Your task to perform on an android device: When is my next meeting? Image 0: 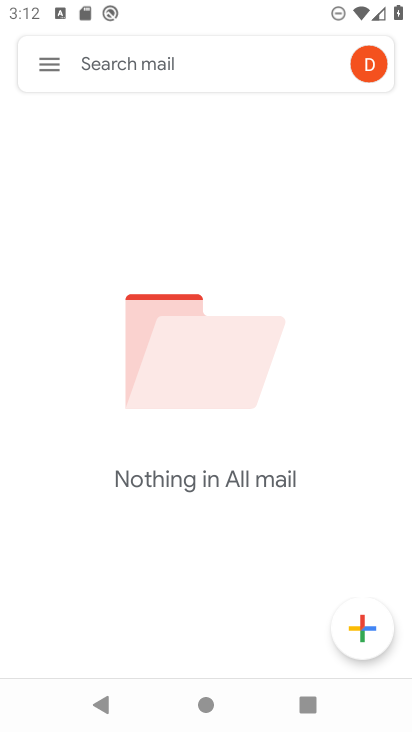
Step 0: press home button
Your task to perform on an android device: When is my next meeting? Image 1: 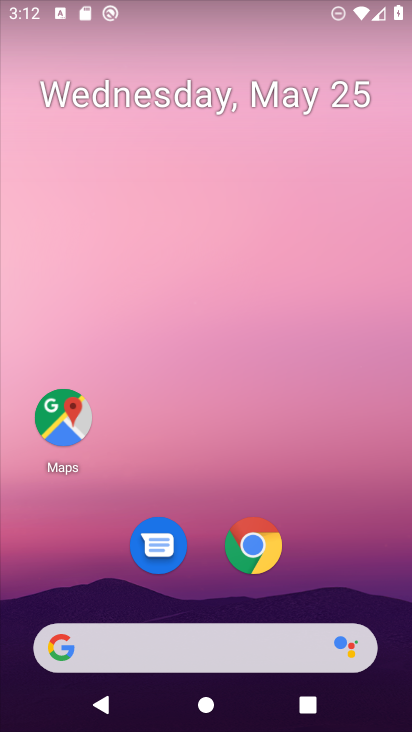
Step 1: drag from (321, 564) to (261, 94)
Your task to perform on an android device: When is my next meeting? Image 2: 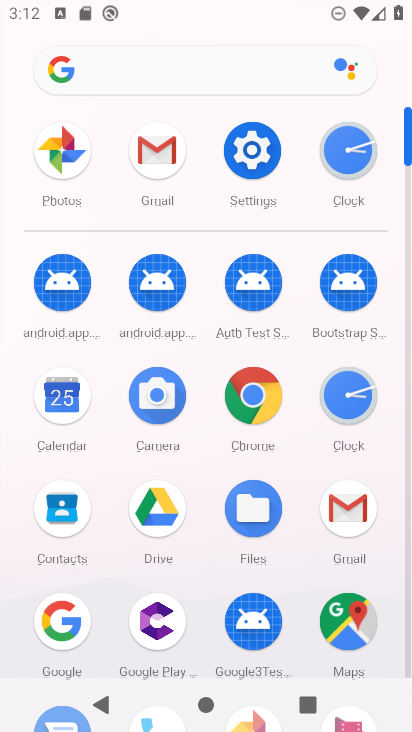
Step 2: click (81, 396)
Your task to perform on an android device: When is my next meeting? Image 3: 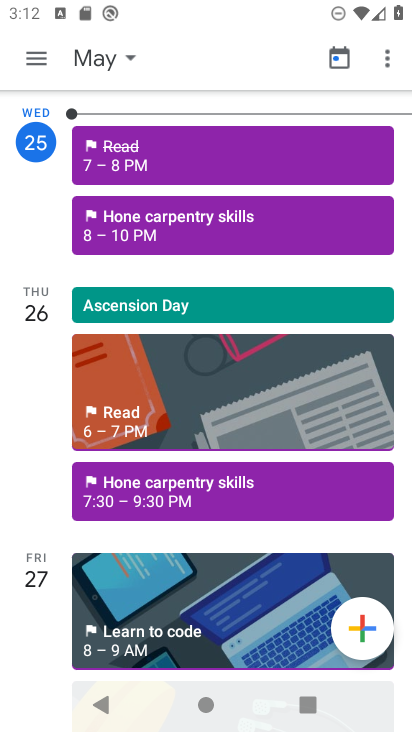
Step 3: task complete